Your task to perform on an android device: Go to settings Image 0: 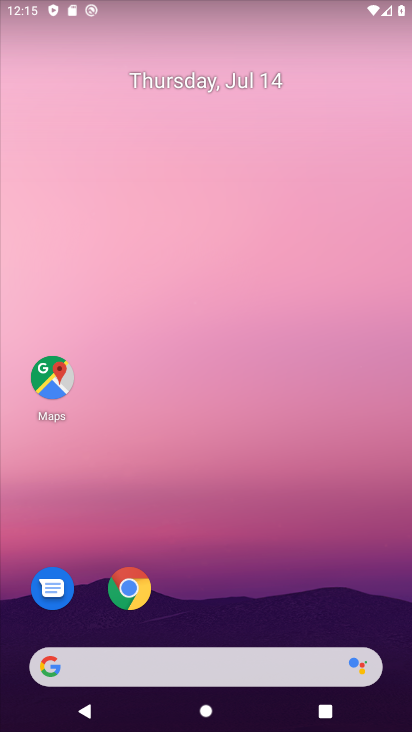
Step 0: drag from (199, 601) to (171, 114)
Your task to perform on an android device: Go to settings Image 1: 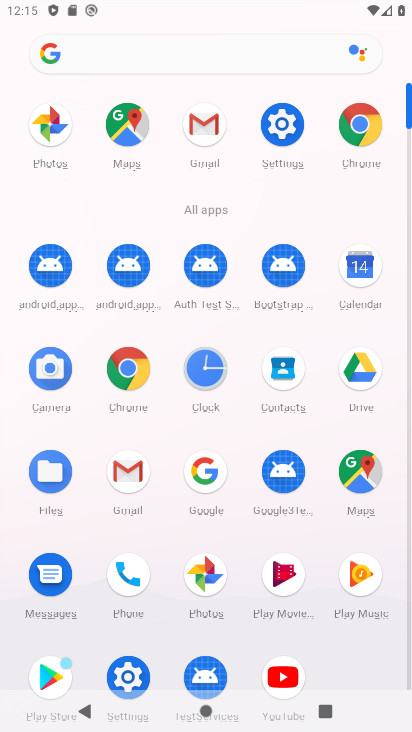
Step 1: click (286, 129)
Your task to perform on an android device: Go to settings Image 2: 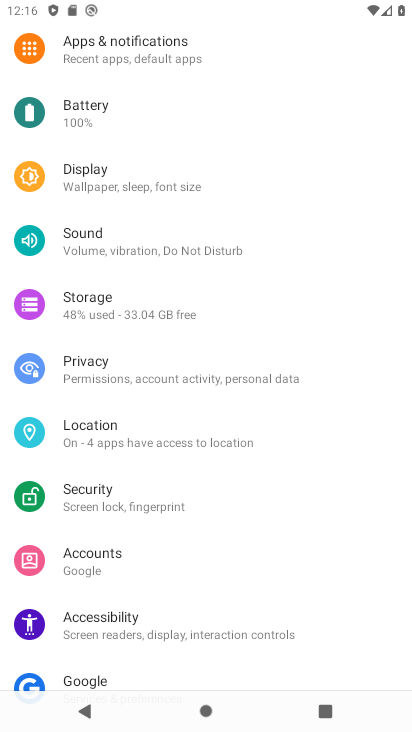
Step 2: task complete